Your task to perform on an android device: open app "Life360: Find Family & Friends" Image 0: 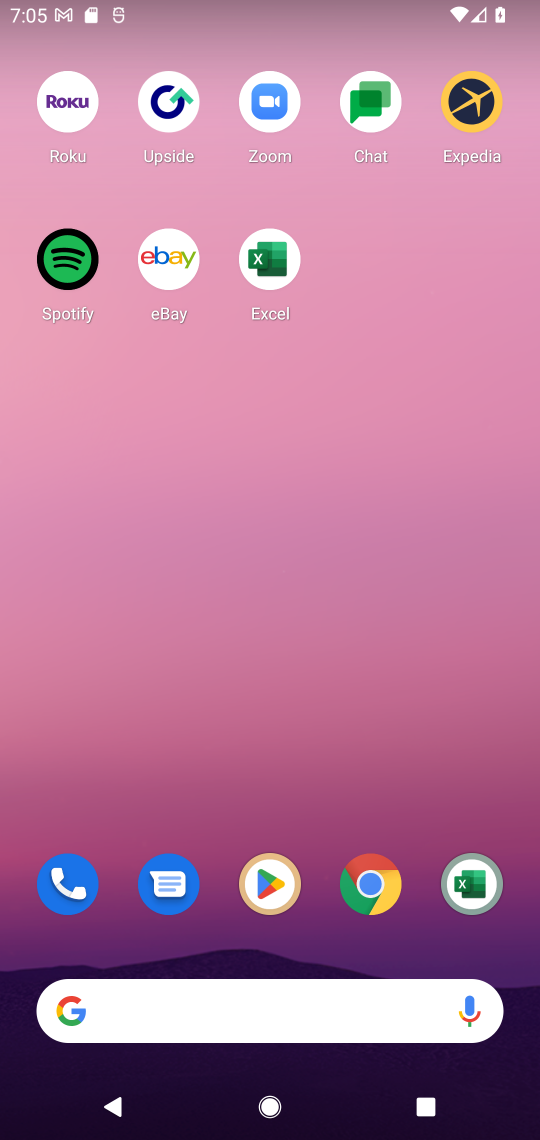
Step 0: drag from (196, 999) to (292, 97)
Your task to perform on an android device: open app "Life360: Find Family & Friends" Image 1: 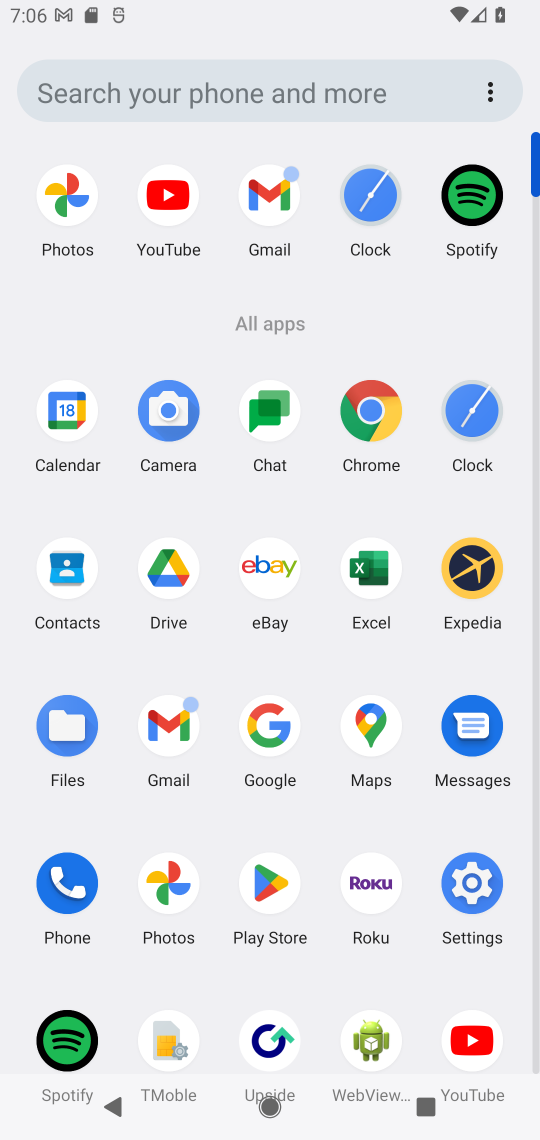
Step 1: click (273, 883)
Your task to perform on an android device: open app "Life360: Find Family & Friends" Image 2: 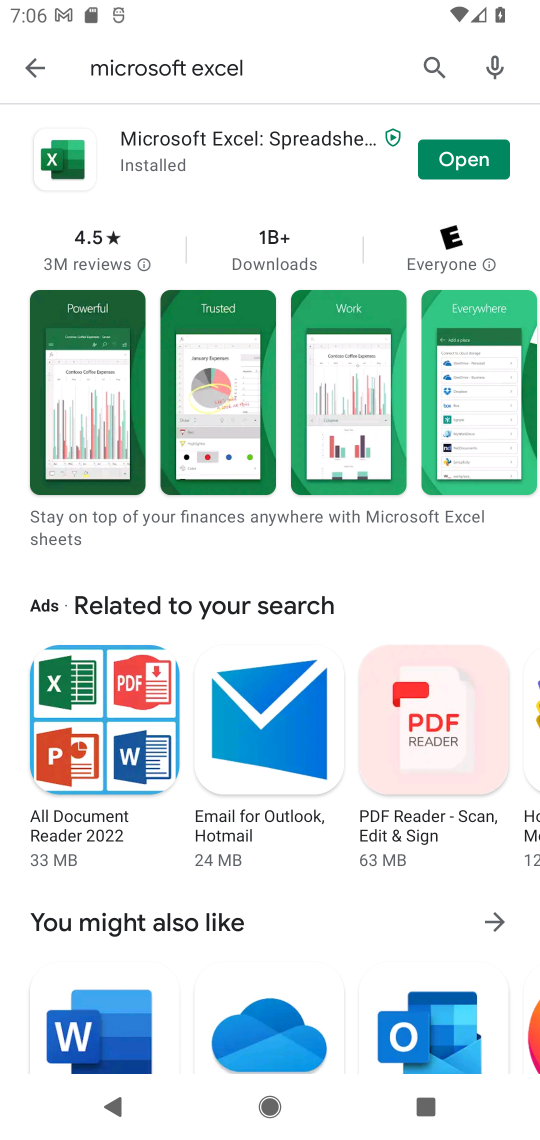
Step 2: press back button
Your task to perform on an android device: open app "Life360: Find Family & Friends" Image 3: 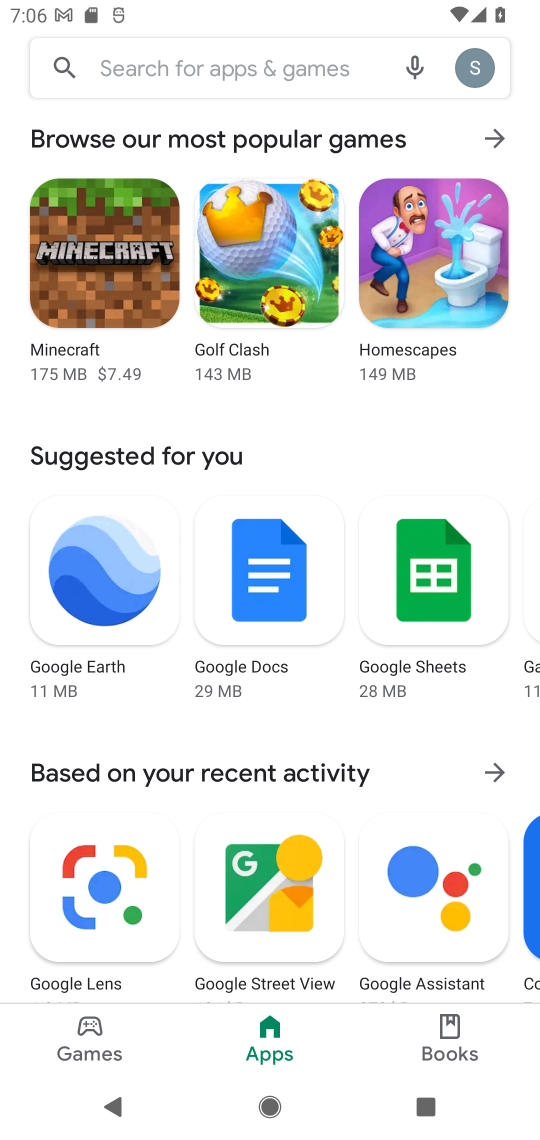
Step 3: click (269, 67)
Your task to perform on an android device: open app "Life360: Find Family & Friends" Image 4: 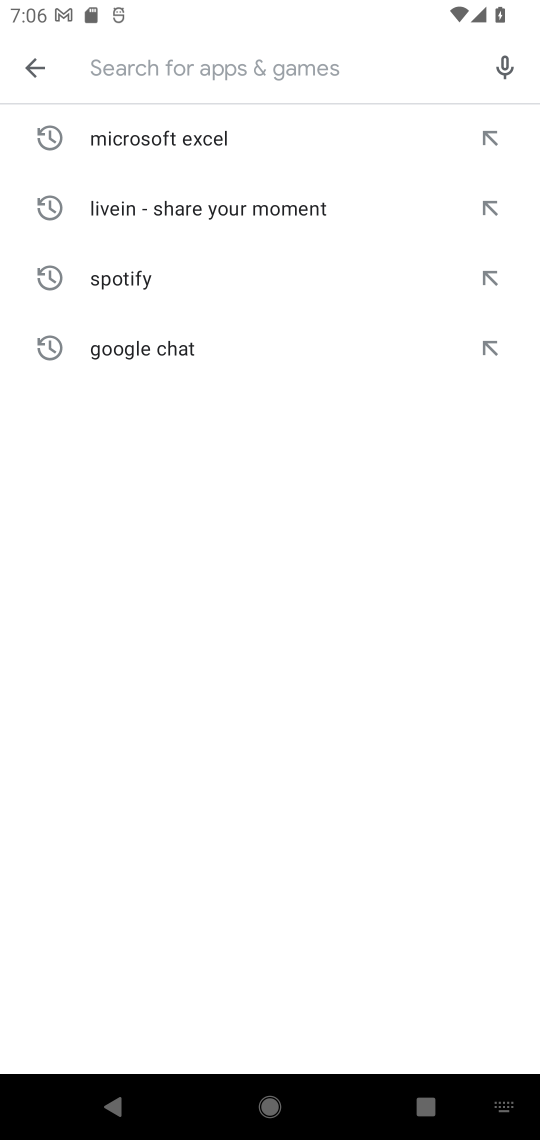
Step 4: type "Life360: Find Family & Friends"
Your task to perform on an android device: open app "Life360: Find Family & Friends" Image 5: 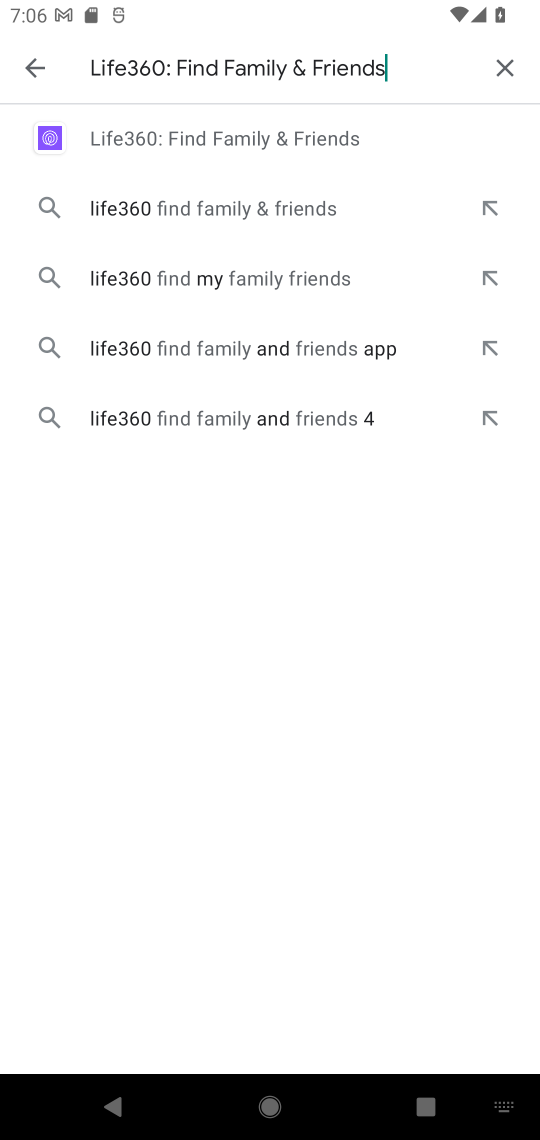
Step 5: click (325, 143)
Your task to perform on an android device: open app "Life360: Find Family & Friends" Image 6: 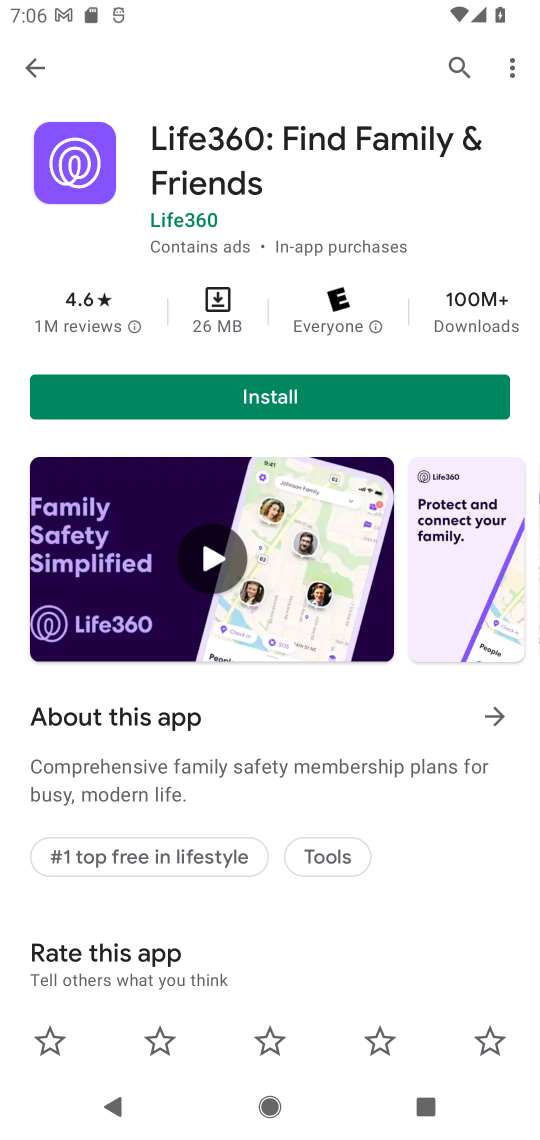
Step 6: task complete